Your task to perform on an android device: clear history in the chrome app Image 0: 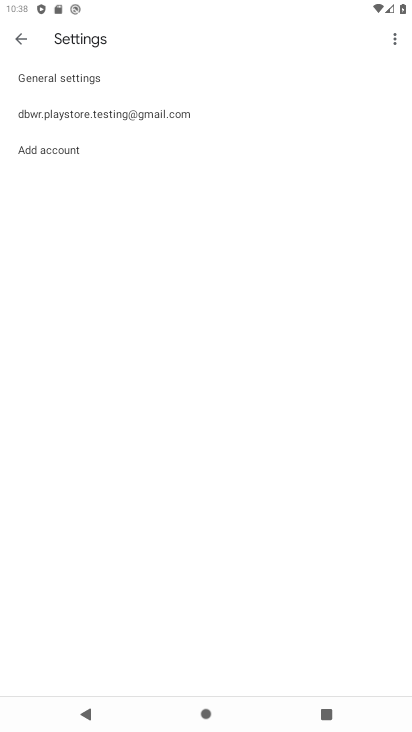
Step 0: press home button
Your task to perform on an android device: clear history in the chrome app Image 1: 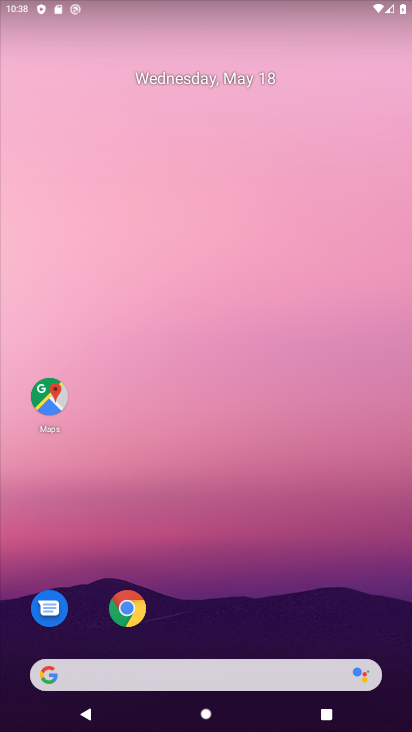
Step 1: click (152, 591)
Your task to perform on an android device: clear history in the chrome app Image 2: 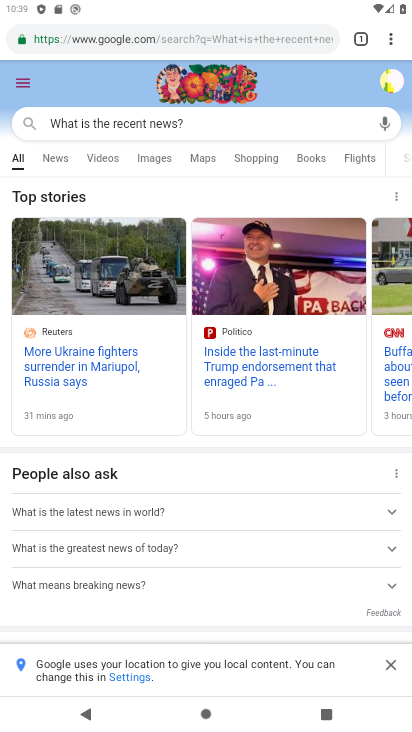
Step 2: drag from (393, 35) to (256, 210)
Your task to perform on an android device: clear history in the chrome app Image 3: 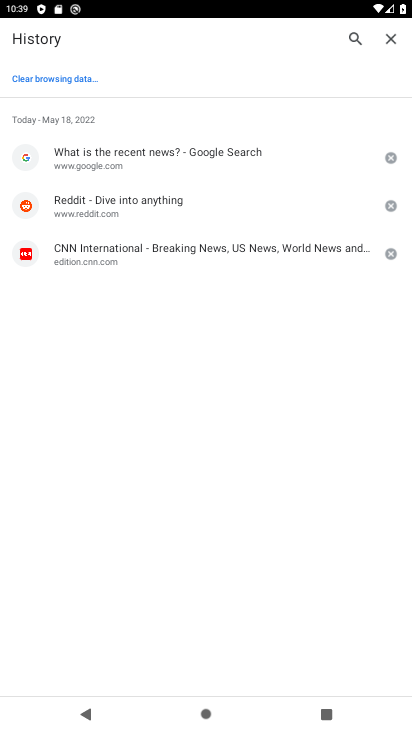
Step 3: click (392, 155)
Your task to perform on an android device: clear history in the chrome app Image 4: 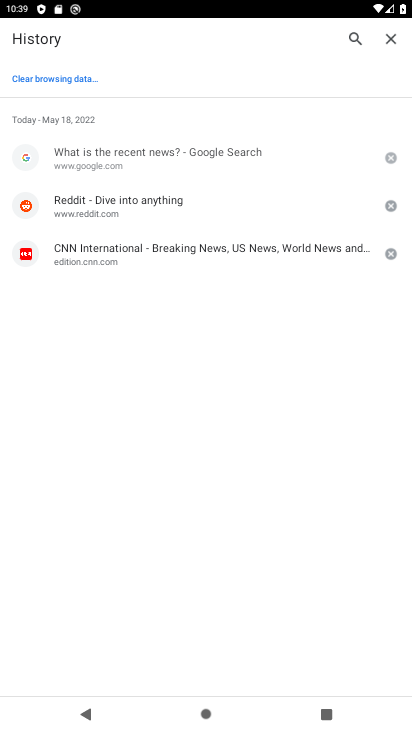
Step 4: click (392, 155)
Your task to perform on an android device: clear history in the chrome app Image 5: 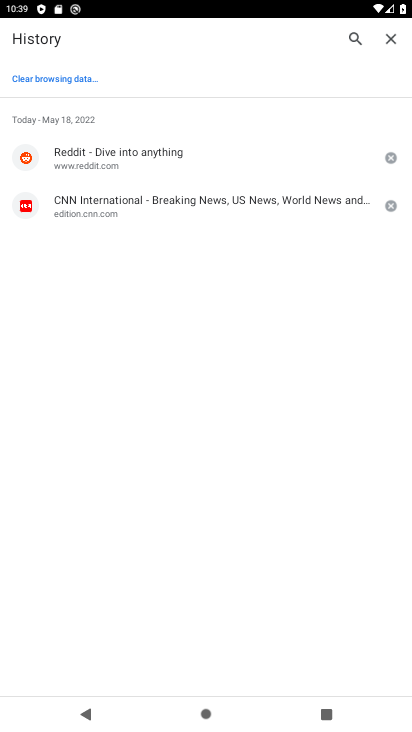
Step 5: click (392, 155)
Your task to perform on an android device: clear history in the chrome app Image 6: 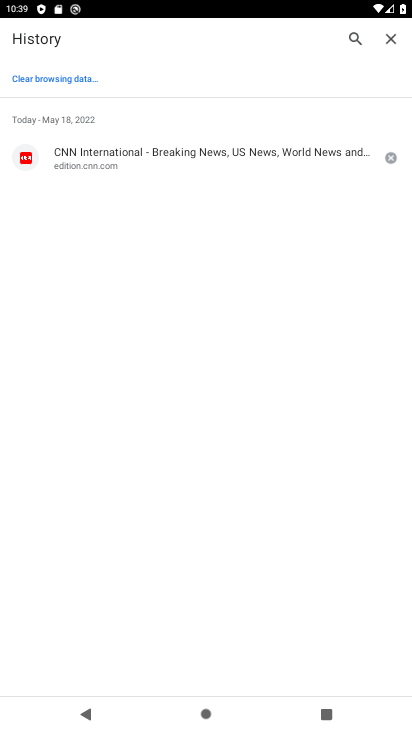
Step 6: click (391, 159)
Your task to perform on an android device: clear history in the chrome app Image 7: 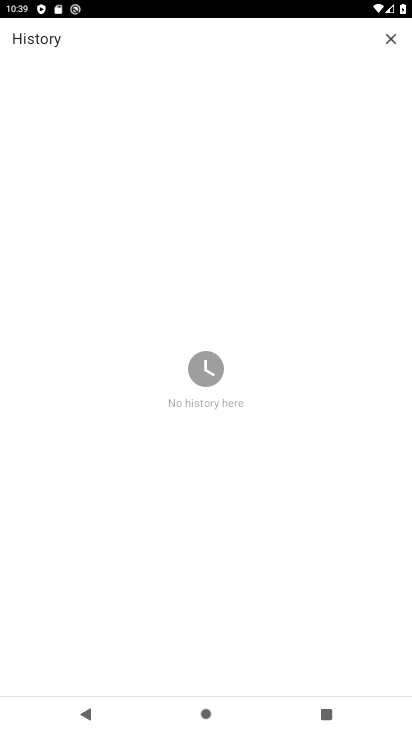
Step 7: task complete